Your task to perform on an android device: Play the last video I watched on Youtube Image 0: 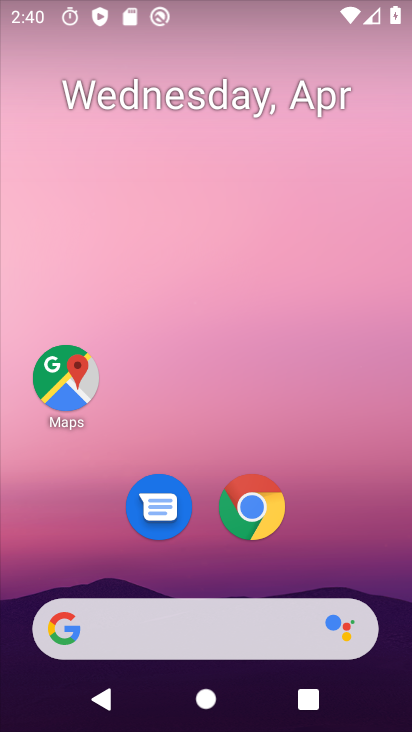
Step 0: drag from (234, 609) to (223, 145)
Your task to perform on an android device: Play the last video I watched on Youtube Image 1: 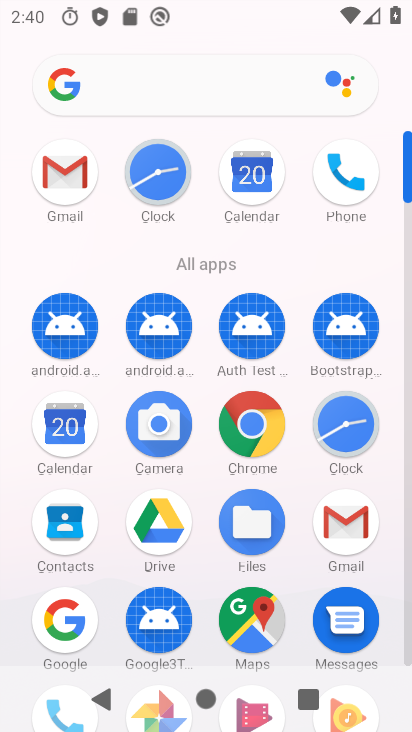
Step 1: drag from (199, 571) to (97, 45)
Your task to perform on an android device: Play the last video I watched on Youtube Image 2: 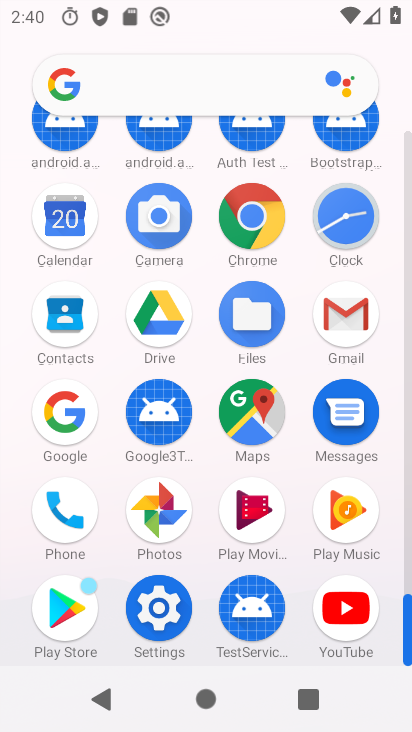
Step 2: click (353, 609)
Your task to perform on an android device: Play the last video I watched on Youtube Image 3: 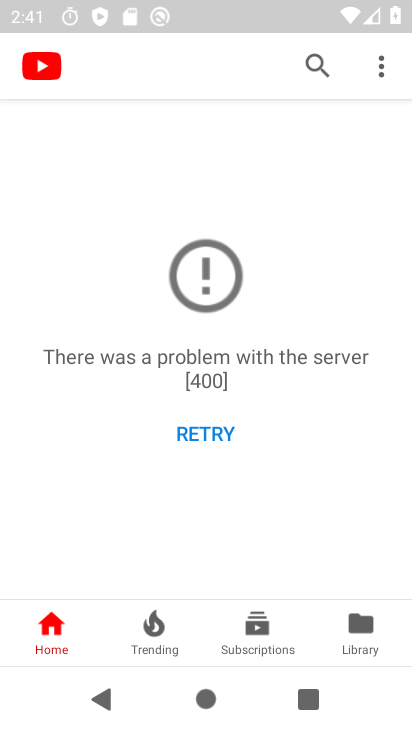
Step 3: click (221, 427)
Your task to perform on an android device: Play the last video I watched on Youtube Image 4: 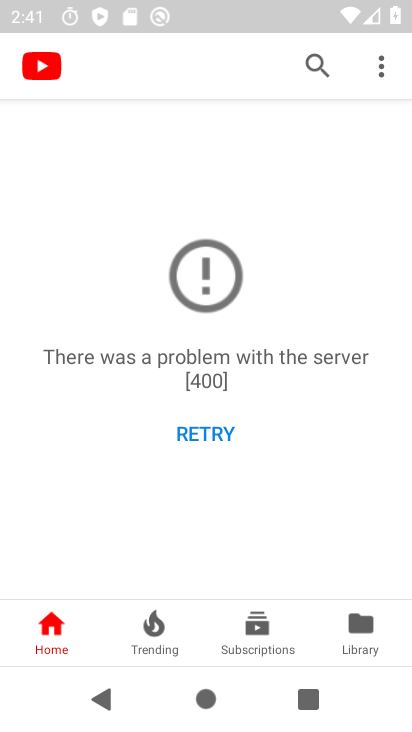
Step 4: task complete